Your task to perform on an android device: Search for logitech g910 on amazon.com, select the first entry, add it to the cart, then select checkout. Image 0: 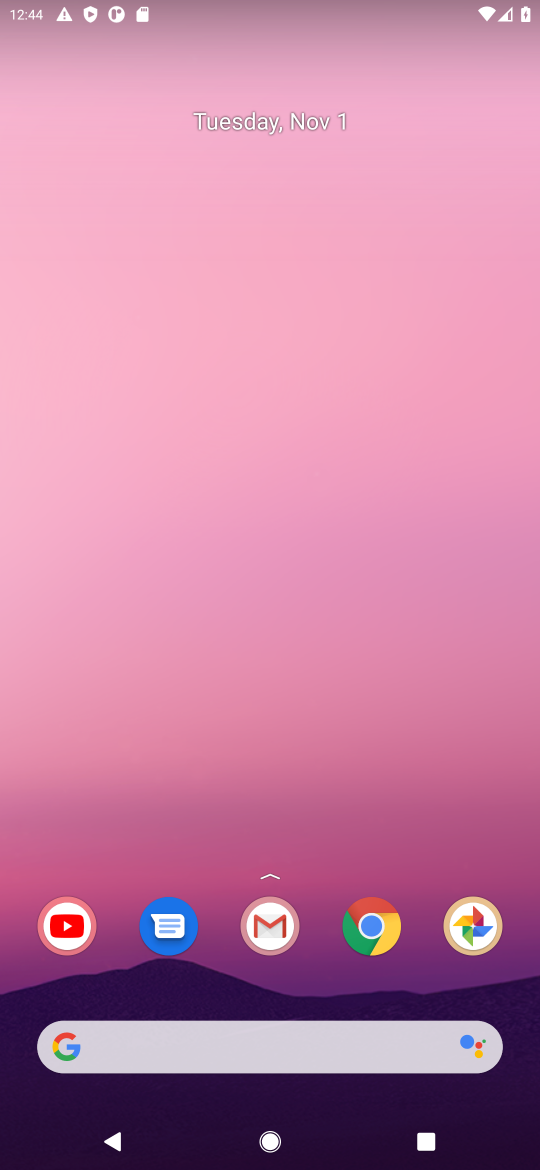
Step 0: click (368, 924)
Your task to perform on an android device: Search for logitech g910 on amazon.com, select the first entry, add it to the cart, then select checkout. Image 1: 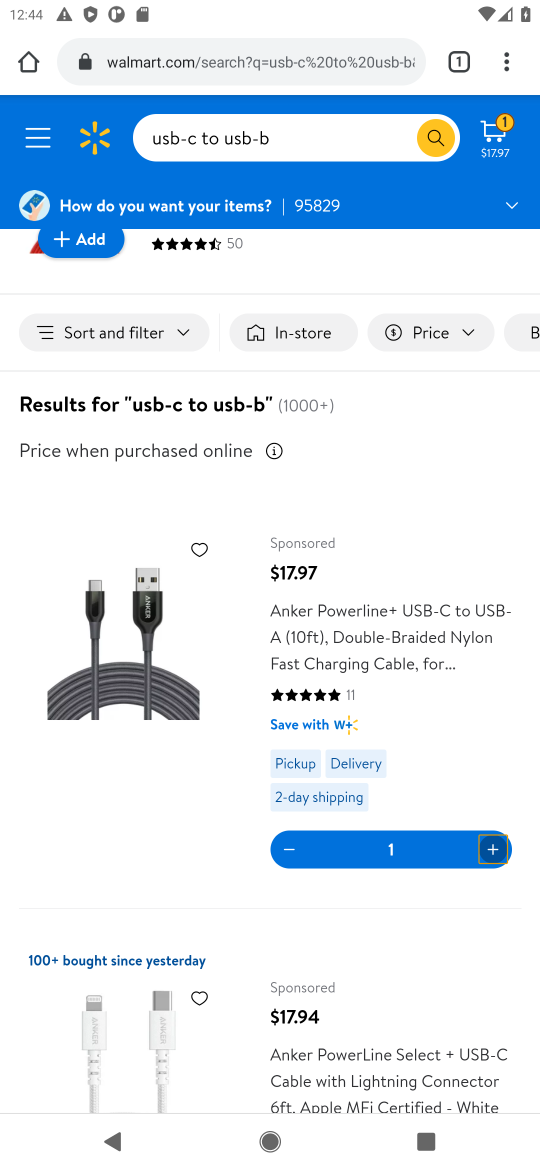
Step 1: click (189, 65)
Your task to perform on an android device: Search for logitech g910 on amazon.com, select the first entry, add it to the cart, then select checkout. Image 2: 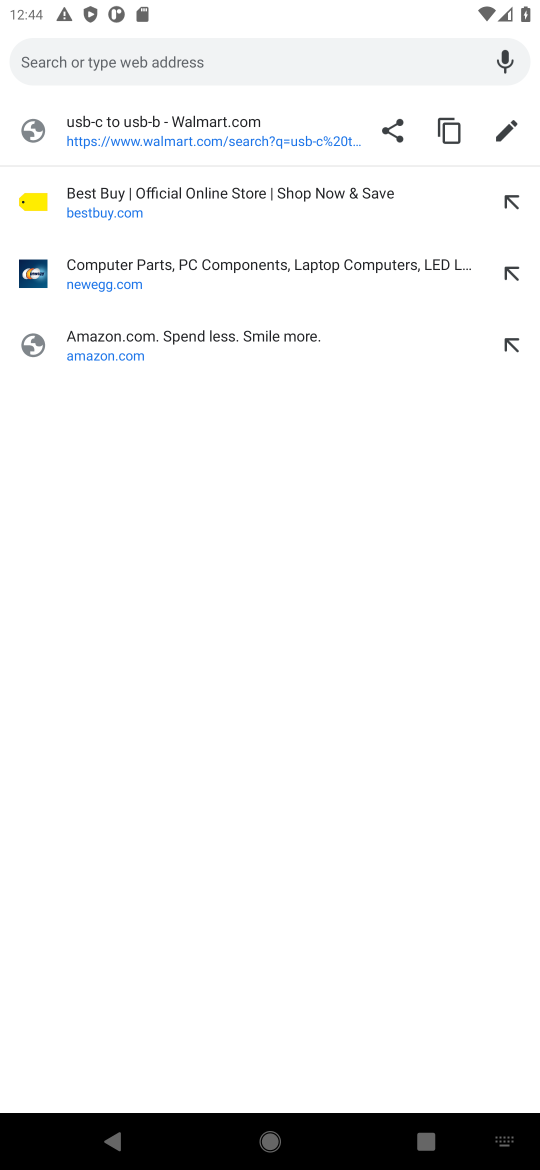
Step 2: type "amazon"
Your task to perform on an android device: Search for logitech g910 on amazon.com, select the first entry, add it to the cart, then select checkout. Image 3: 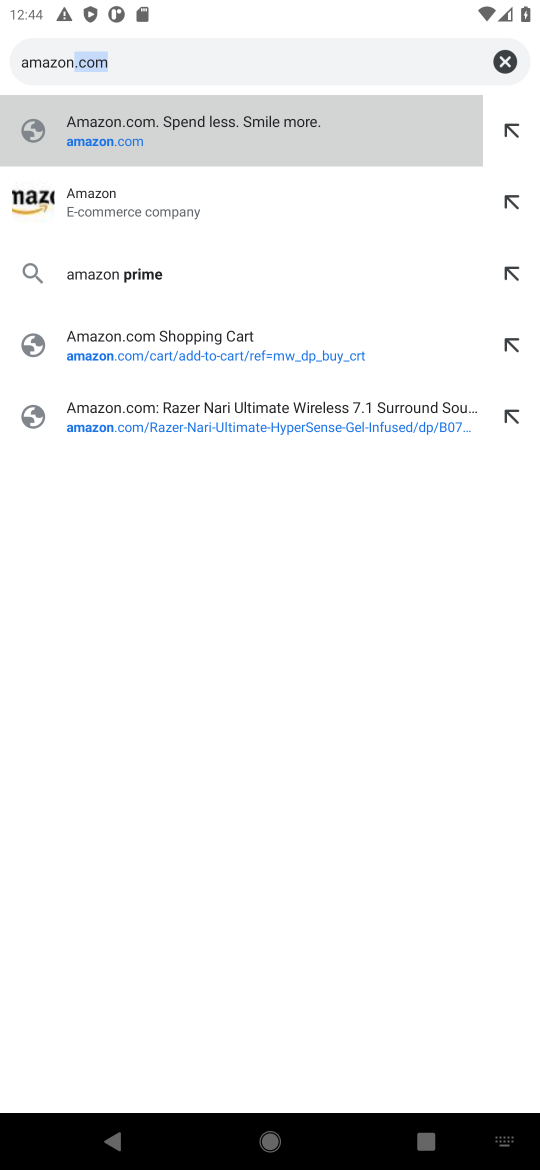
Step 3: press enter
Your task to perform on an android device: Search for logitech g910 on amazon.com, select the first entry, add it to the cart, then select checkout. Image 4: 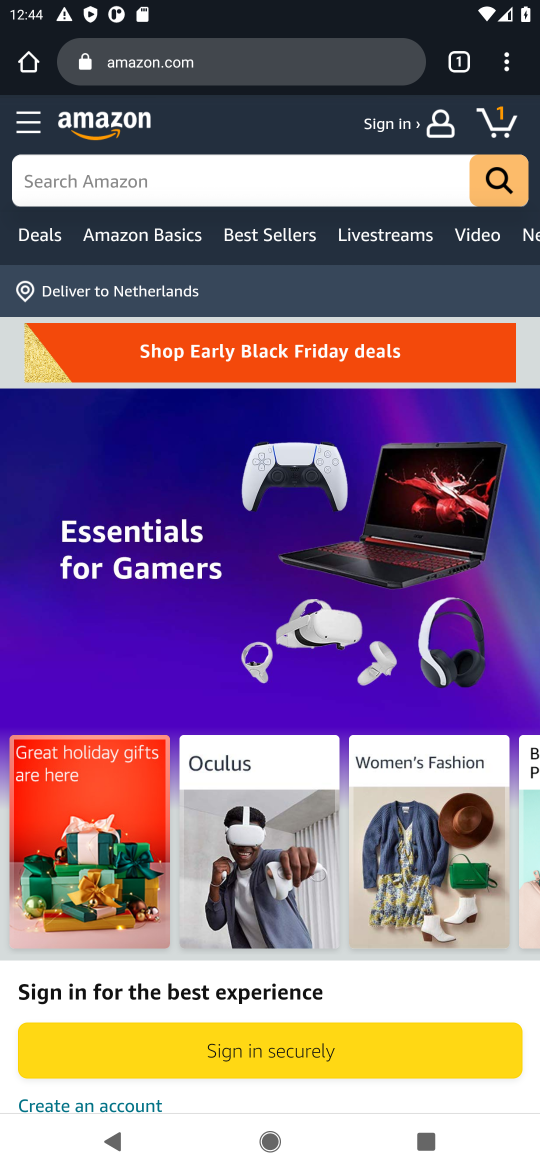
Step 4: click (131, 178)
Your task to perform on an android device: Search for logitech g910 on amazon.com, select the first entry, add it to the cart, then select checkout. Image 5: 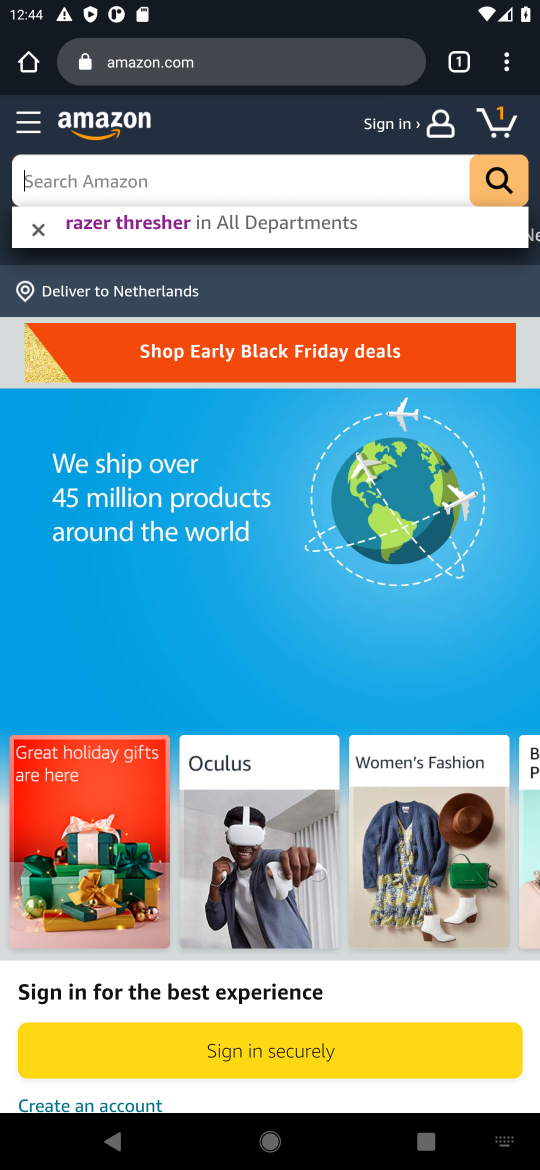
Step 5: type "logitech g910"
Your task to perform on an android device: Search for logitech g910 on amazon.com, select the first entry, add it to the cart, then select checkout. Image 6: 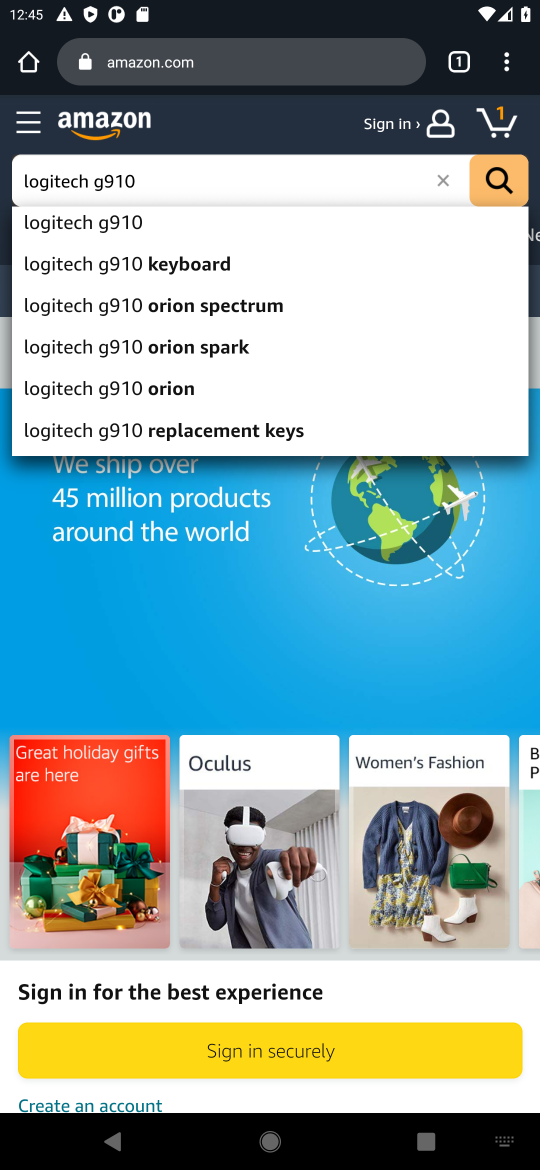
Step 6: press enter
Your task to perform on an android device: Search for logitech g910 on amazon.com, select the first entry, add it to the cart, then select checkout. Image 7: 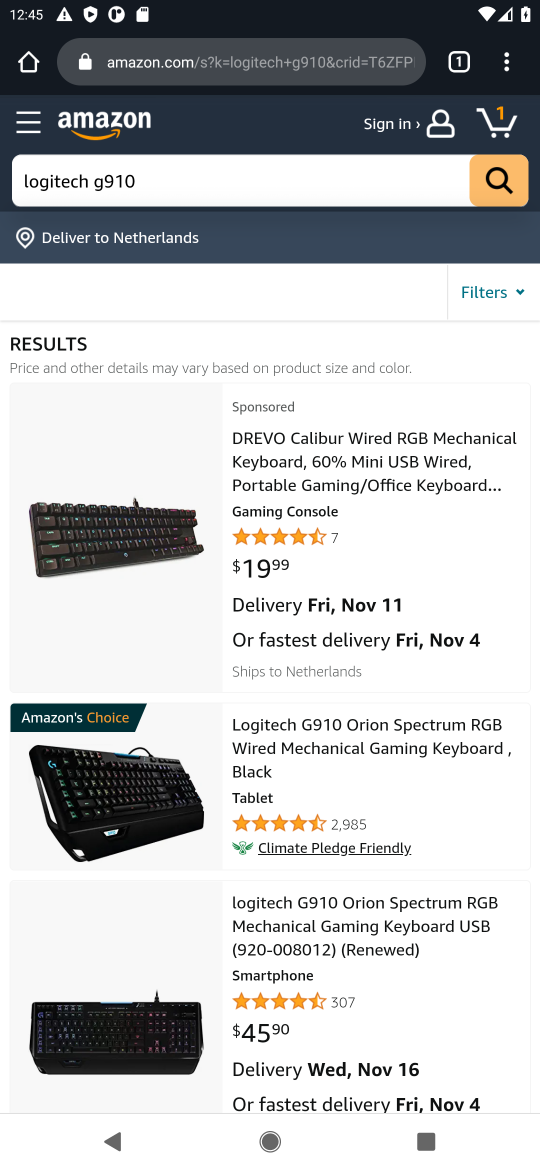
Step 7: click (294, 489)
Your task to perform on an android device: Search for logitech g910 on amazon.com, select the first entry, add it to the cart, then select checkout. Image 8: 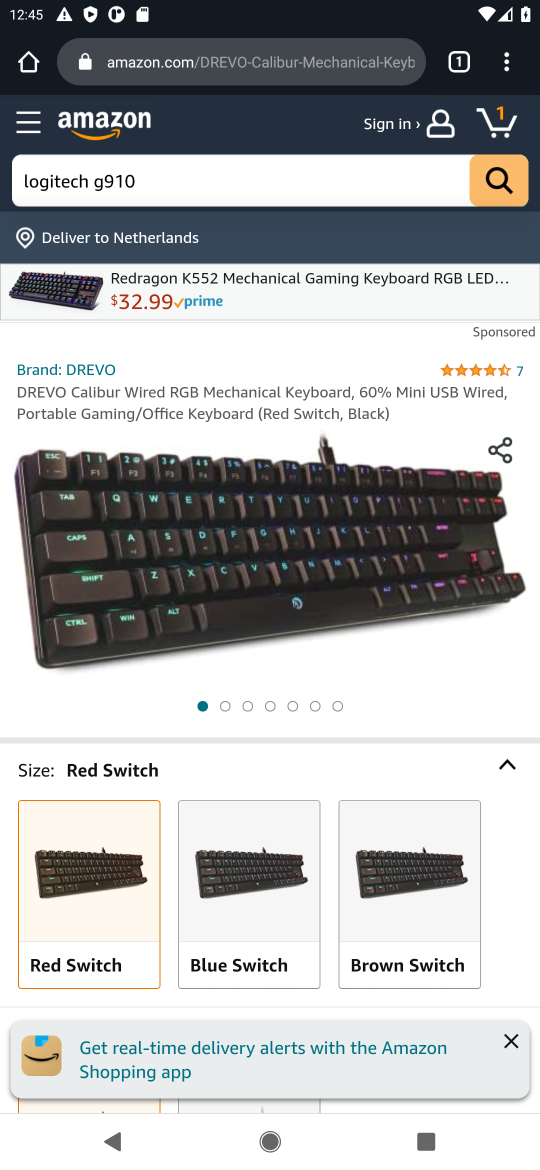
Step 8: drag from (381, 758) to (300, 212)
Your task to perform on an android device: Search for logitech g910 on amazon.com, select the first entry, add it to the cart, then select checkout. Image 9: 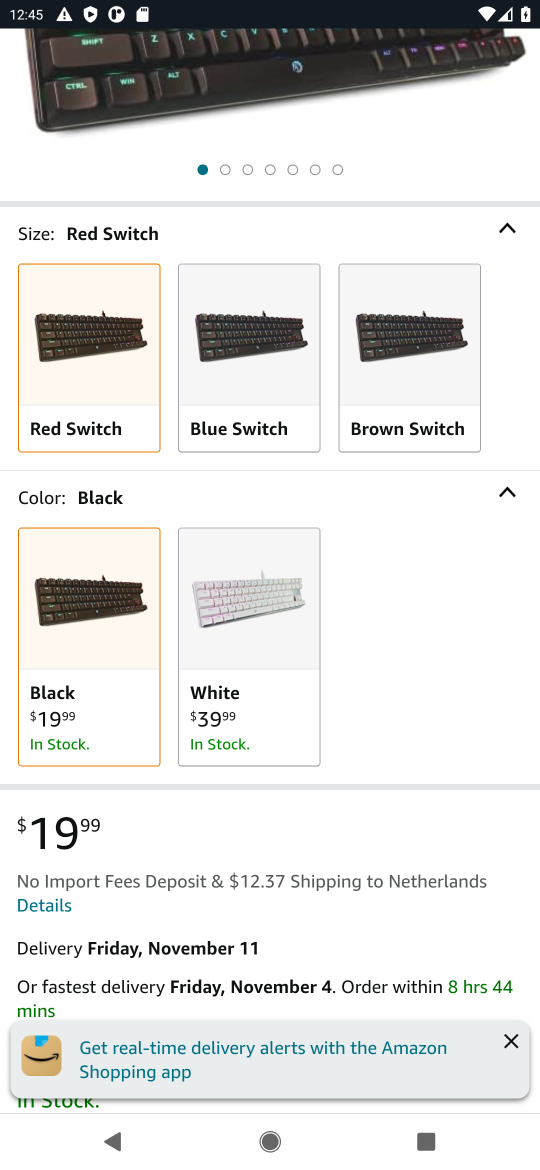
Step 9: drag from (293, 842) to (281, 412)
Your task to perform on an android device: Search for logitech g910 on amazon.com, select the first entry, add it to the cart, then select checkout. Image 10: 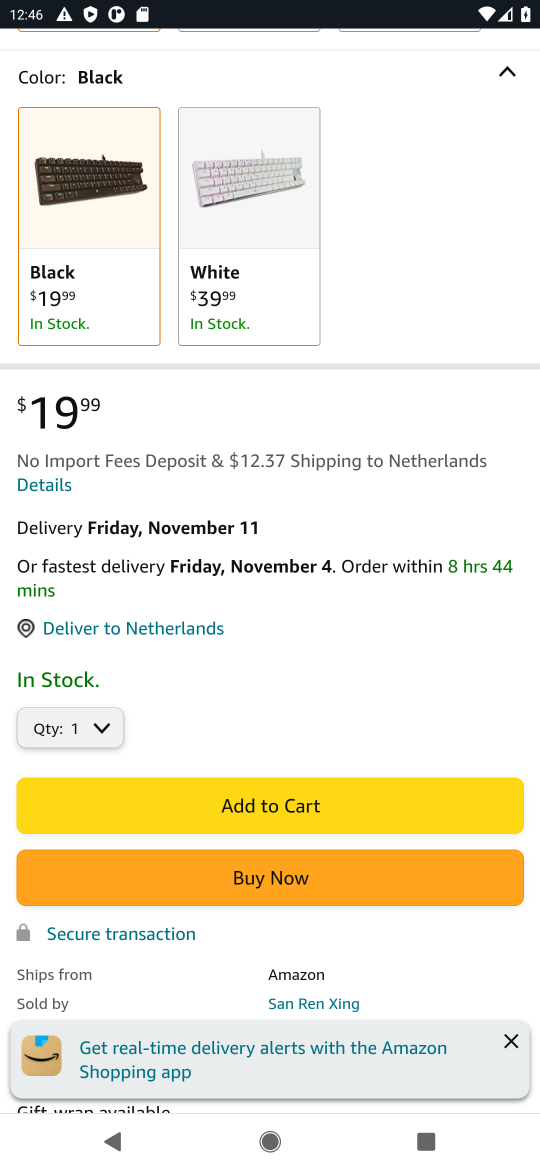
Step 10: click (270, 811)
Your task to perform on an android device: Search for logitech g910 on amazon.com, select the first entry, add it to the cart, then select checkout. Image 11: 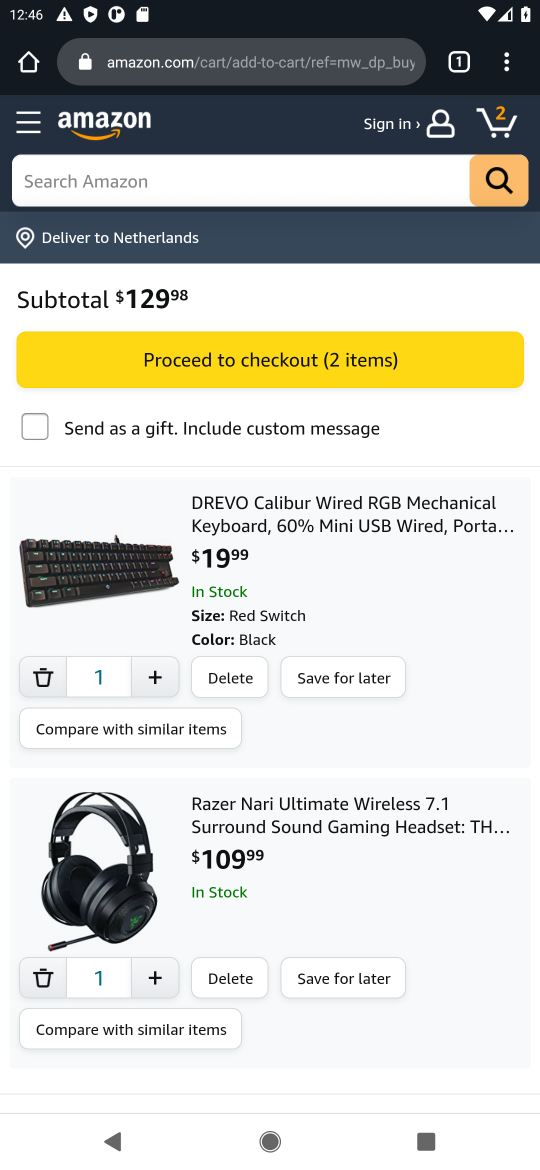
Step 11: click (374, 359)
Your task to perform on an android device: Search for logitech g910 on amazon.com, select the first entry, add it to the cart, then select checkout. Image 12: 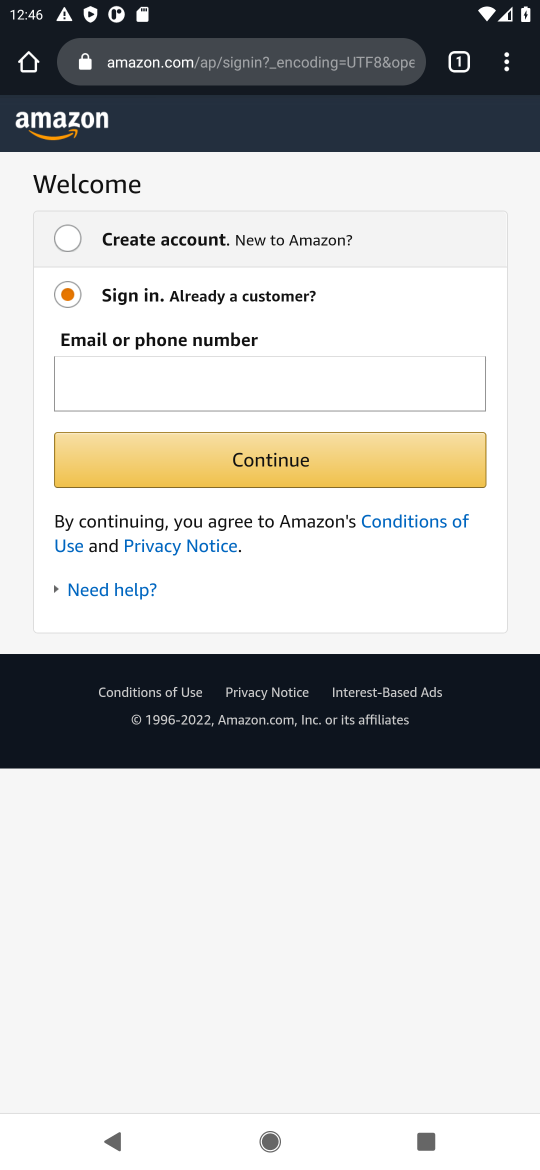
Step 12: task complete